Your task to perform on an android device: Go to Wikipedia Image 0: 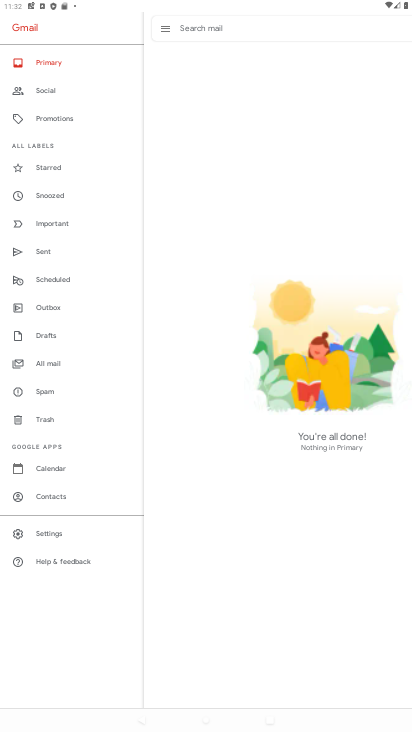
Step 0: press home button
Your task to perform on an android device: Go to Wikipedia Image 1: 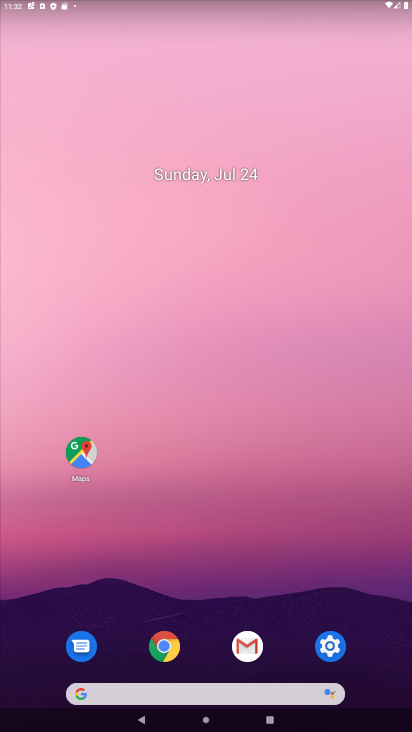
Step 1: click (172, 644)
Your task to perform on an android device: Go to Wikipedia Image 2: 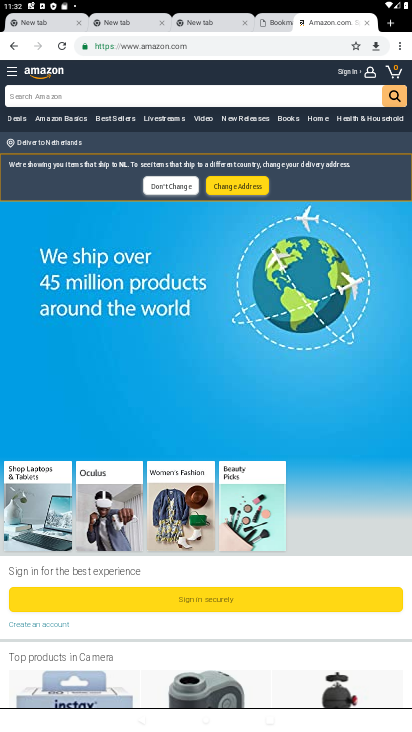
Step 2: click (400, 39)
Your task to perform on an android device: Go to Wikipedia Image 3: 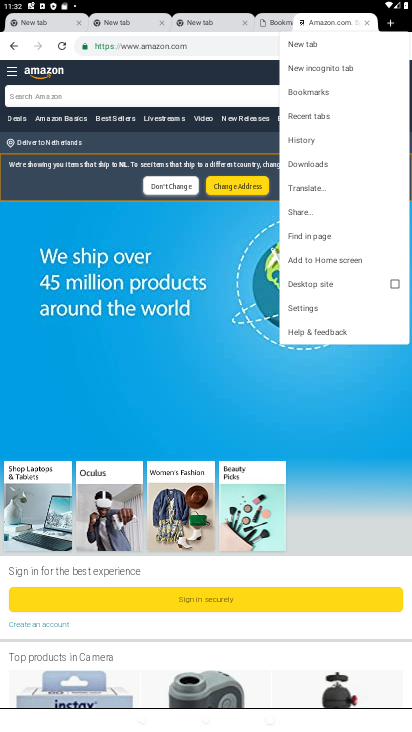
Step 3: click (307, 45)
Your task to perform on an android device: Go to Wikipedia Image 4: 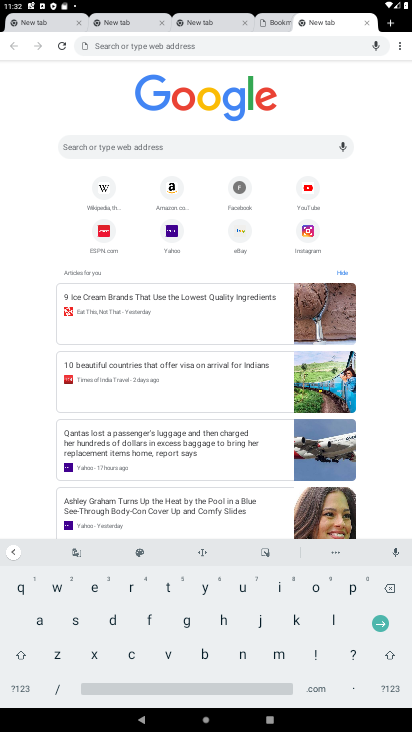
Step 4: click (105, 191)
Your task to perform on an android device: Go to Wikipedia Image 5: 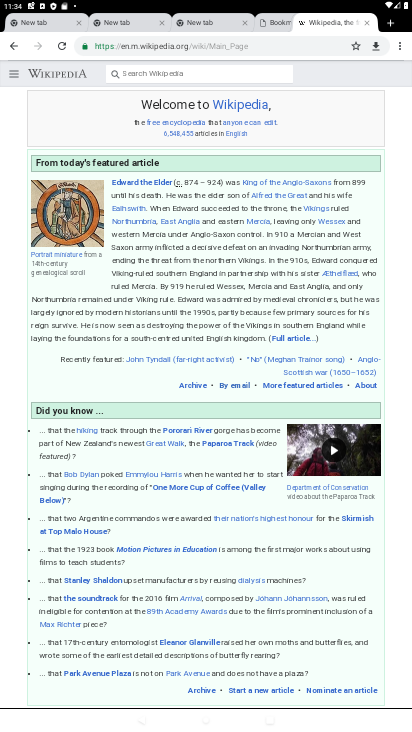
Step 5: task complete